Your task to perform on an android device: Open Google Maps Image 0: 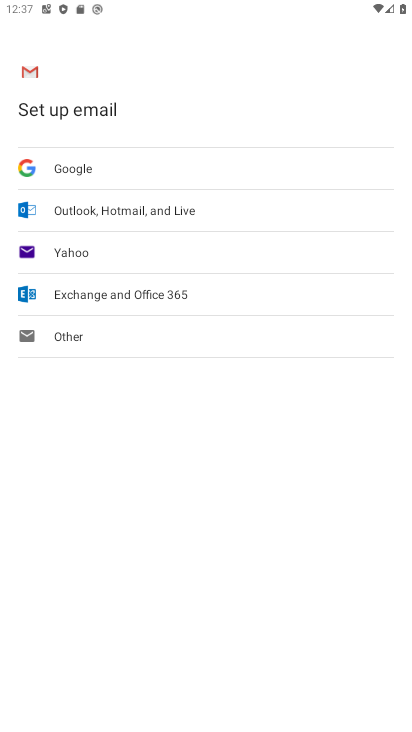
Step 0: press home button
Your task to perform on an android device: Open Google Maps Image 1: 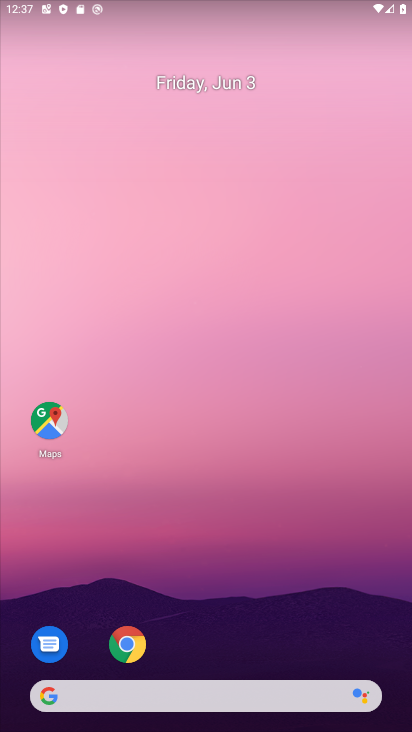
Step 1: click (43, 423)
Your task to perform on an android device: Open Google Maps Image 2: 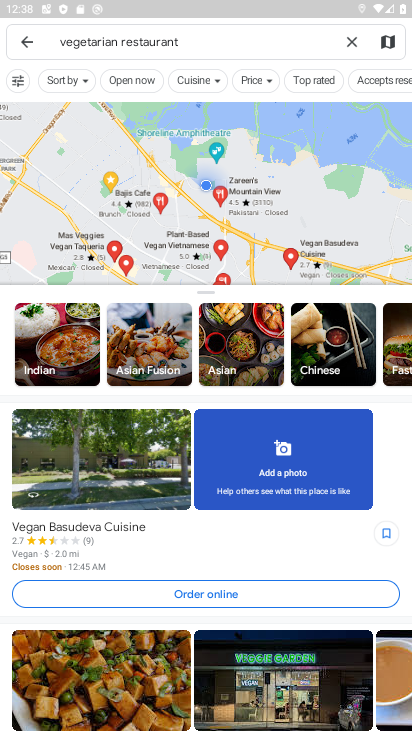
Step 2: task complete